Your task to perform on an android device: Open settings on Google Maps Image 0: 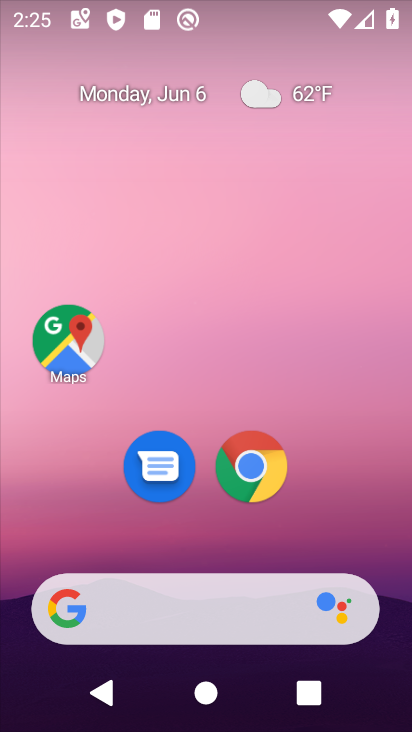
Step 0: click (73, 328)
Your task to perform on an android device: Open settings on Google Maps Image 1: 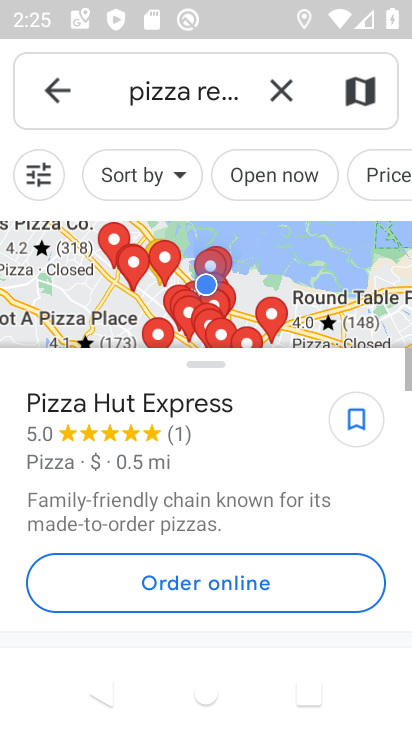
Step 1: click (54, 96)
Your task to perform on an android device: Open settings on Google Maps Image 2: 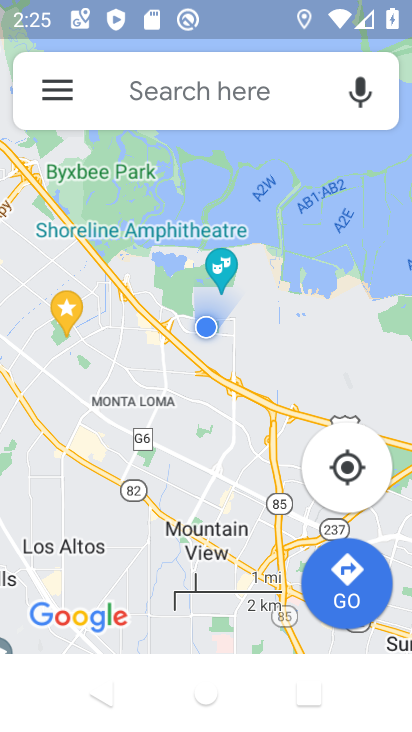
Step 2: click (54, 96)
Your task to perform on an android device: Open settings on Google Maps Image 3: 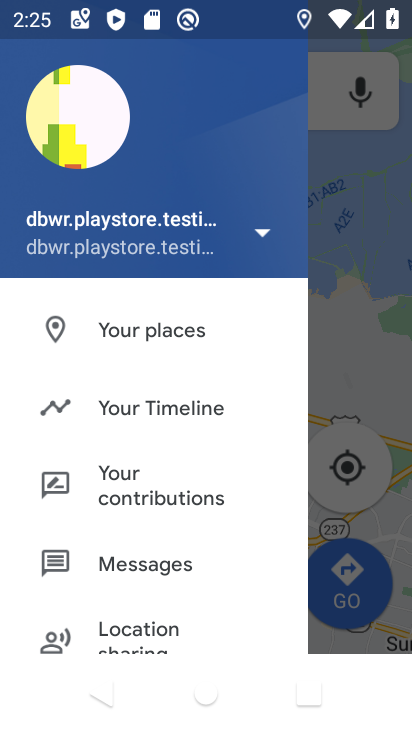
Step 3: drag from (200, 646) to (191, 265)
Your task to perform on an android device: Open settings on Google Maps Image 4: 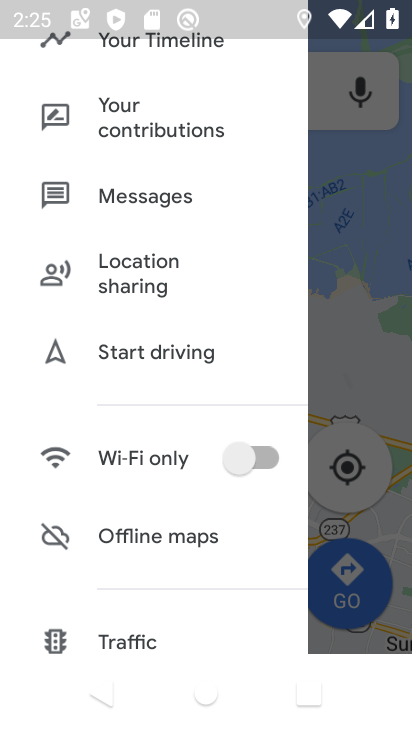
Step 4: drag from (194, 495) to (181, 129)
Your task to perform on an android device: Open settings on Google Maps Image 5: 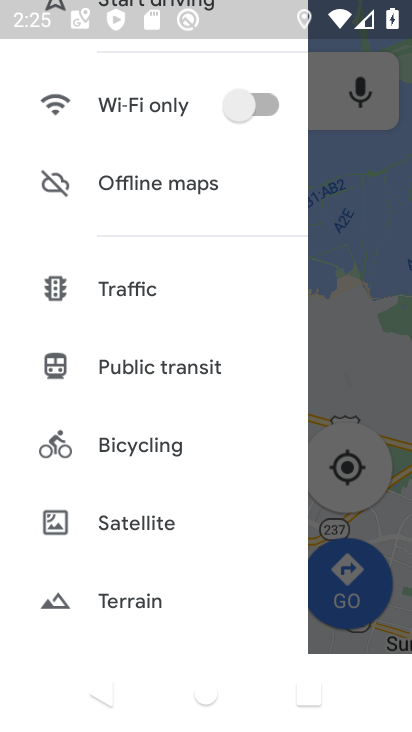
Step 5: drag from (145, 533) to (143, 160)
Your task to perform on an android device: Open settings on Google Maps Image 6: 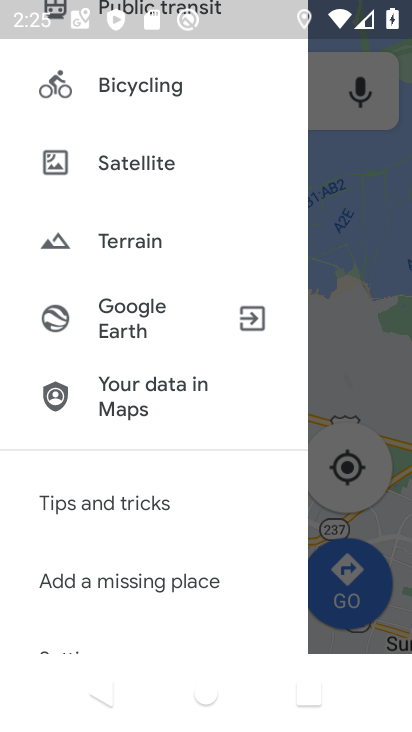
Step 6: drag from (158, 449) to (156, 137)
Your task to perform on an android device: Open settings on Google Maps Image 7: 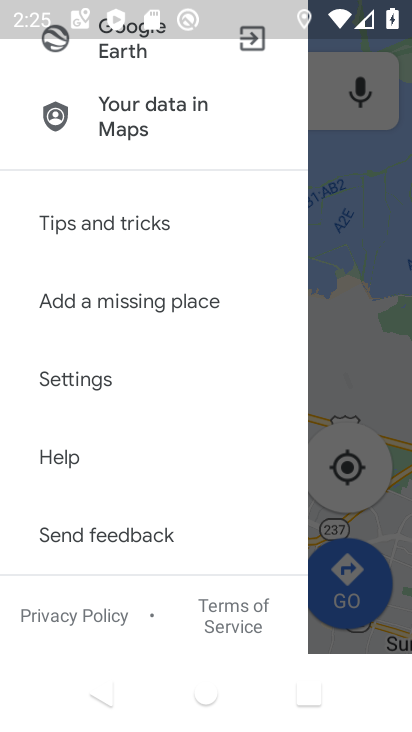
Step 7: click (123, 366)
Your task to perform on an android device: Open settings on Google Maps Image 8: 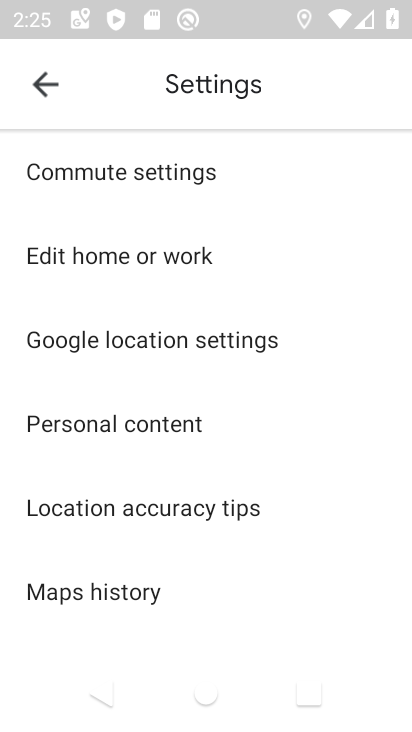
Step 8: task complete